Your task to perform on an android device: turn notification dots on Image 0: 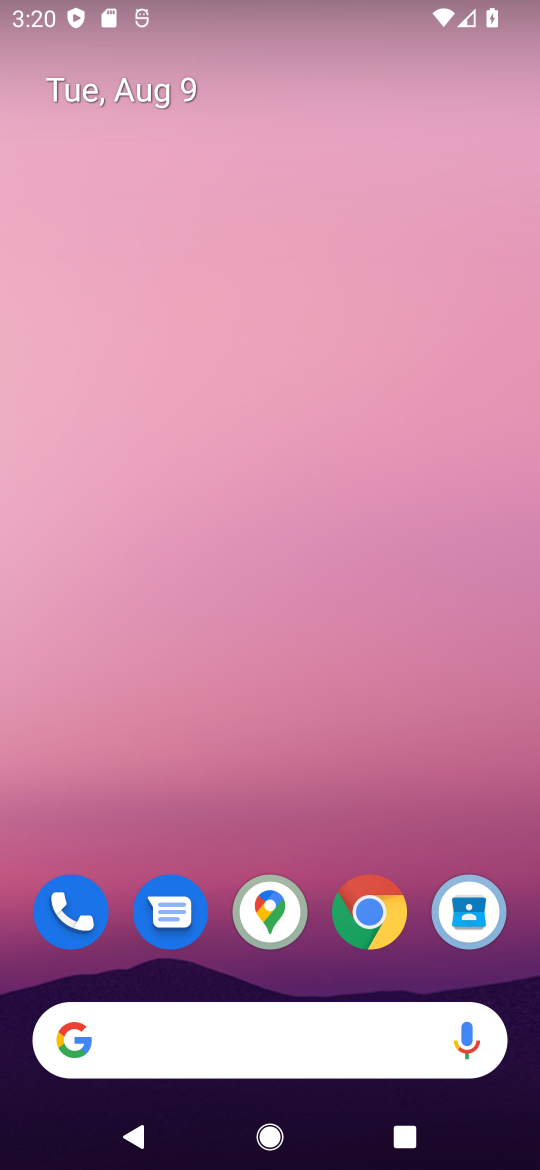
Step 0: drag from (254, 791) to (332, 60)
Your task to perform on an android device: turn notification dots on Image 1: 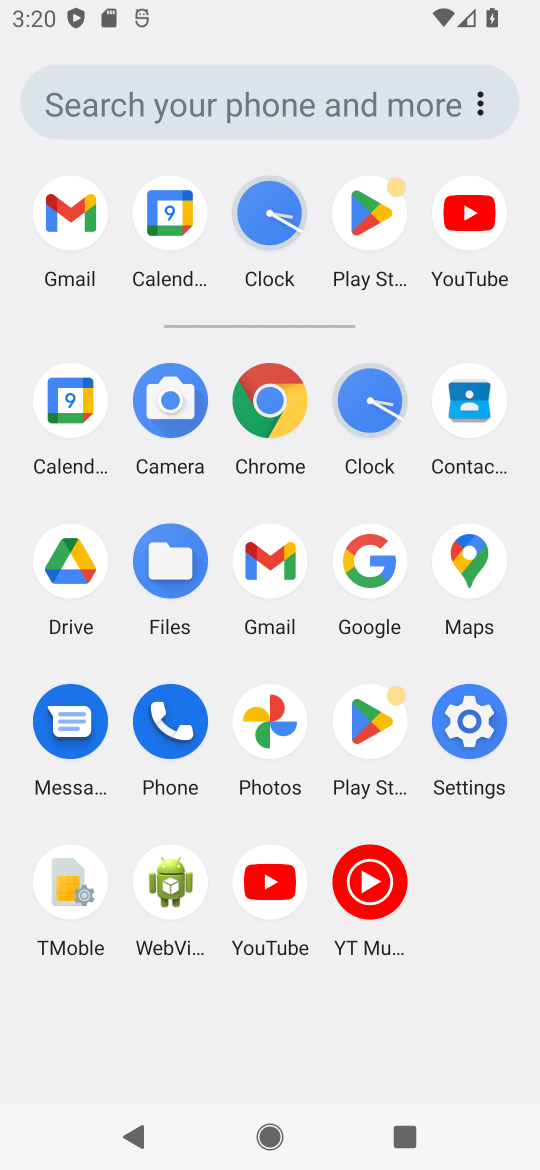
Step 1: click (466, 723)
Your task to perform on an android device: turn notification dots on Image 2: 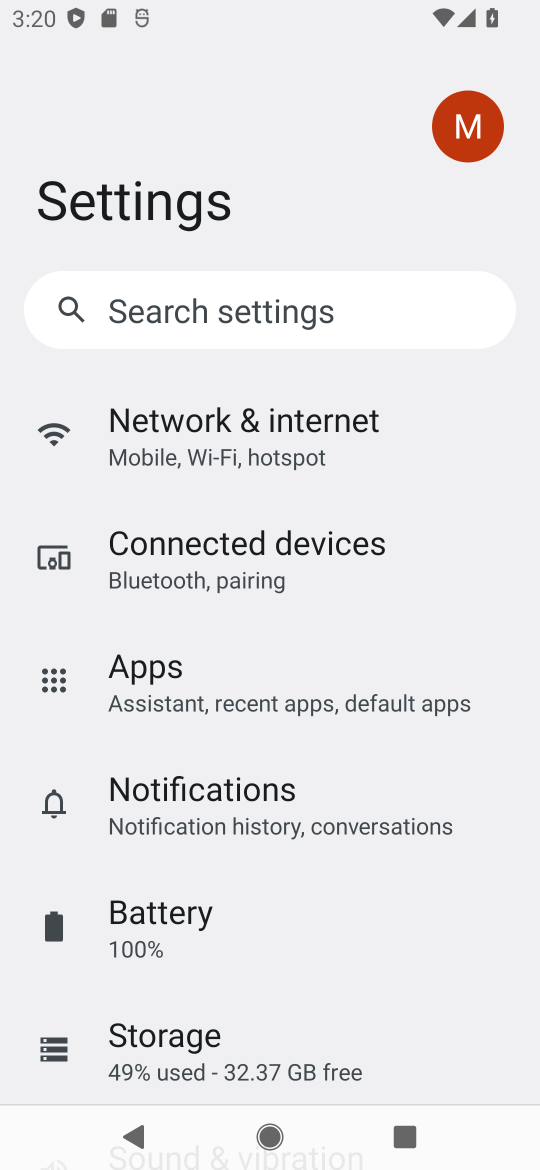
Step 2: click (219, 795)
Your task to perform on an android device: turn notification dots on Image 3: 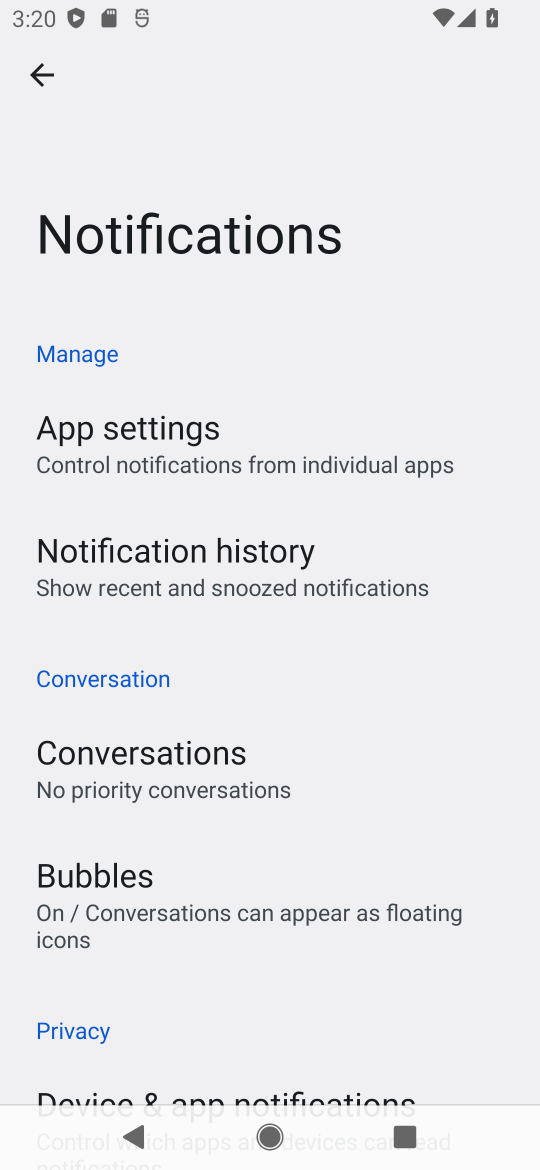
Step 3: task complete